Your task to perform on an android device: turn on wifi Image 0: 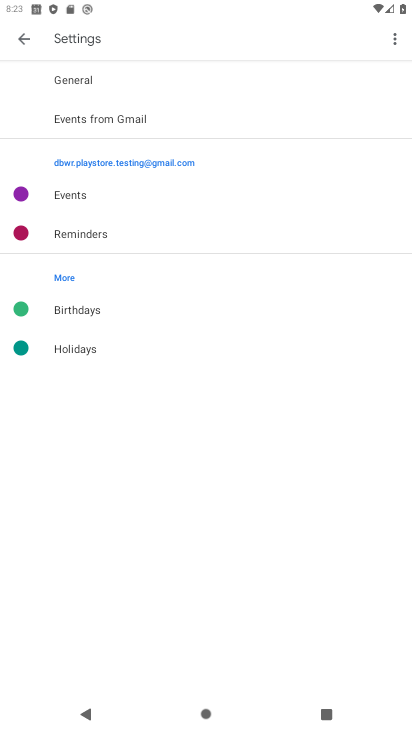
Step 0: press home button
Your task to perform on an android device: turn on wifi Image 1: 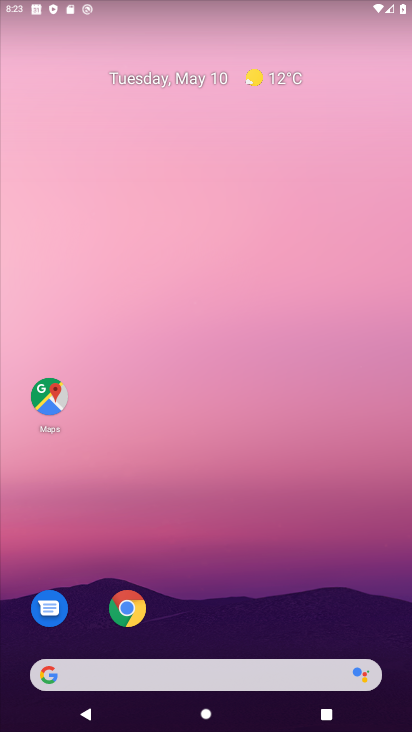
Step 1: drag from (241, 670) to (224, 78)
Your task to perform on an android device: turn on wifi Image 2: 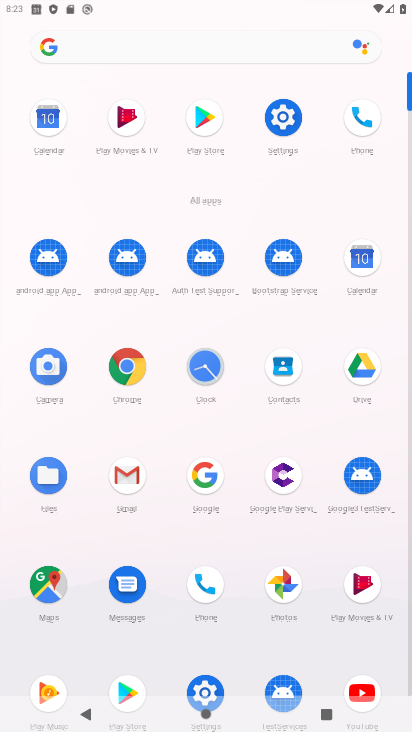
Step 2: click (275, 112)
Your task to perform on an android device: turn on wifi Image 3: 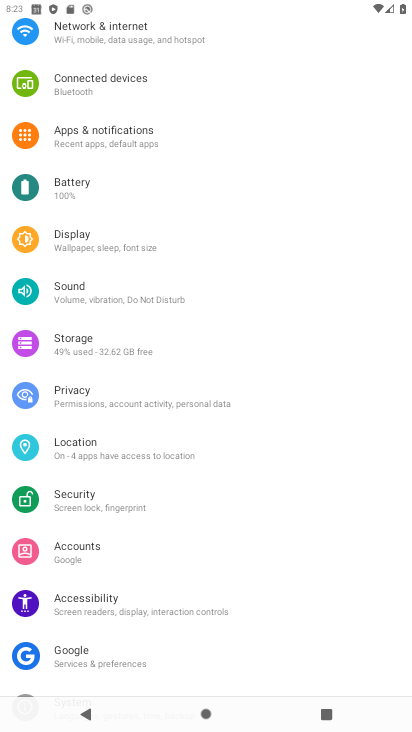
Step 3: drag from (151, 85) to (173, 548)
Your task to perform on an android device: turn on wifi Image 4: 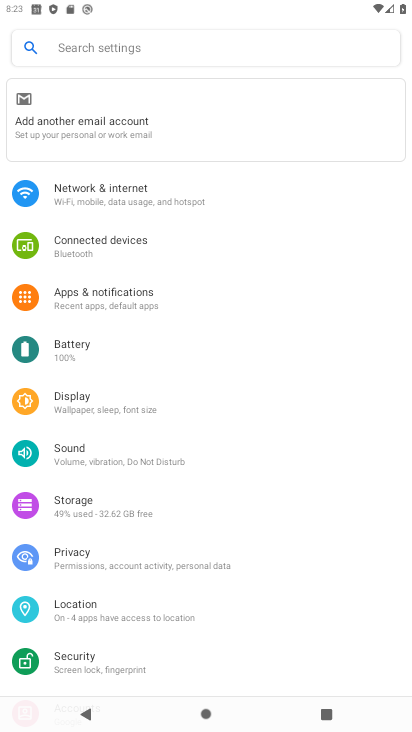
Step 4: click (142, 203)
Your task to perform on an android device: turn on wifi Image 5: 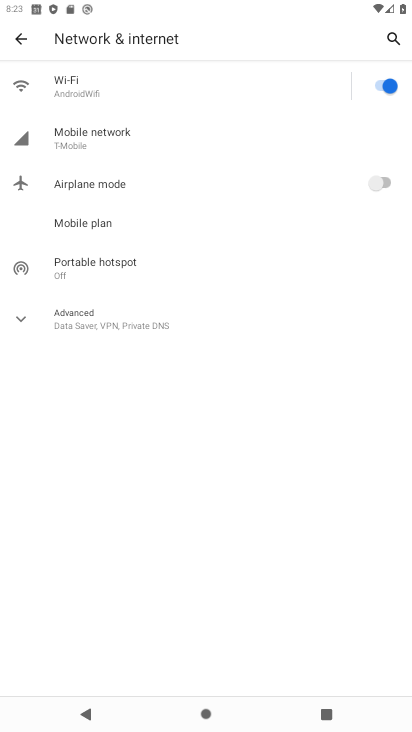
Step 5: task complete